Your task to perform on an android device: Open Android settings Image 0: 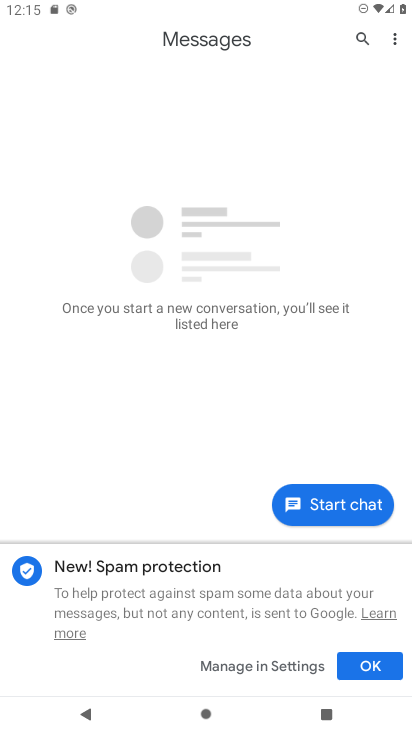
Step 0: press home button
Your task to perform on an android device: Open Android settings Image 1: 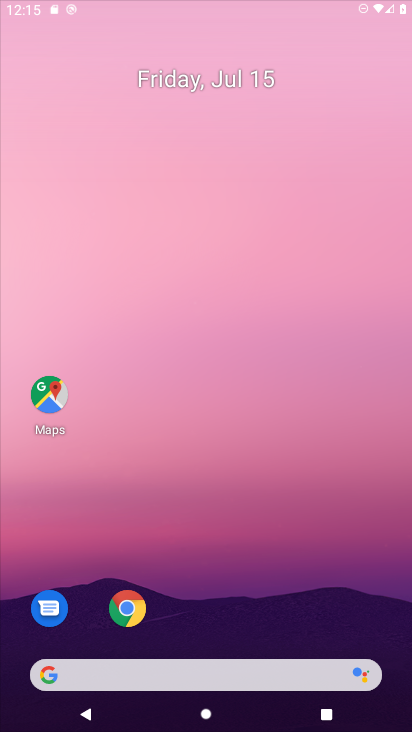
Step 1: drag from (282, 655) to (320, 2)
Your task to perform on an android device: Open Android settings Image 2: 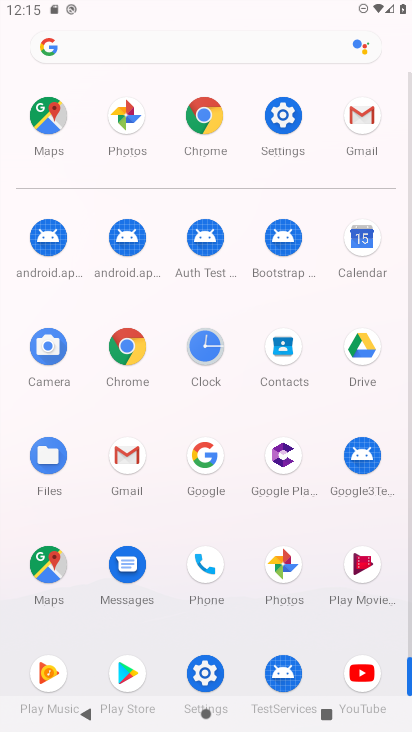
Step 2: click (287, 110)
Your task to perform on an android device: Open Android settings Image 3: 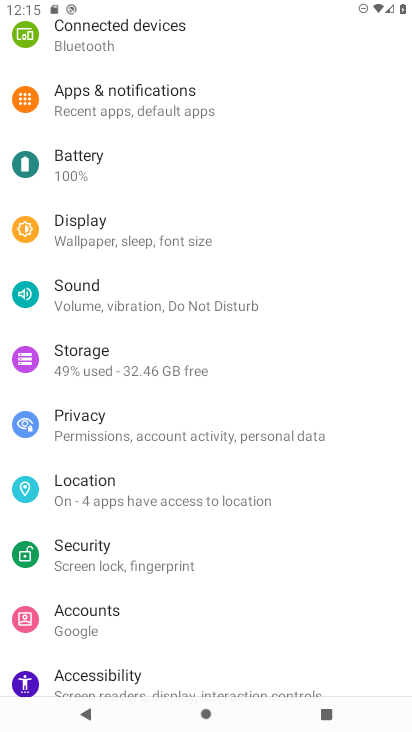
Step 3: drag from (208, 595) to (300, 66)
Your task to perform on an android device: Open Android settings Image 4: 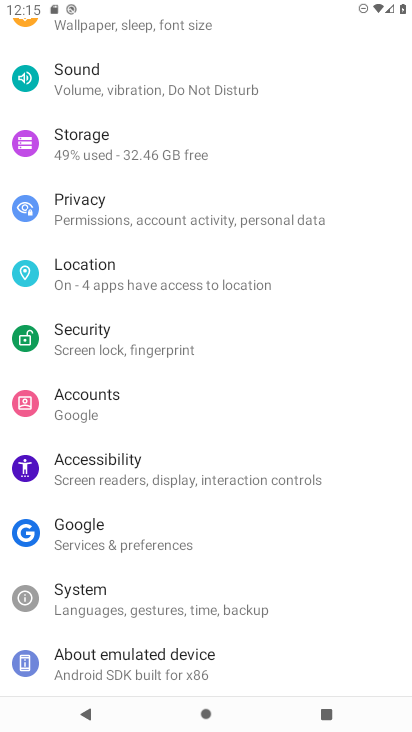
Step 4: click (217, 666)
Your task to perform on an android device: Open Android settings Image 5: 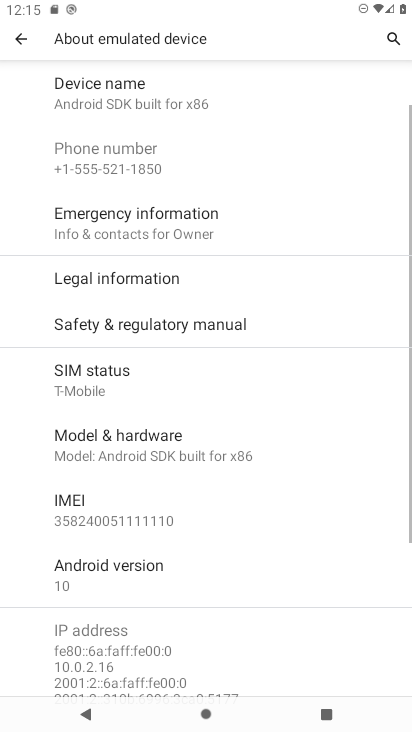
Step 5: task complete